Your task to perform on an android device: open sync settings in chrome Image 0: 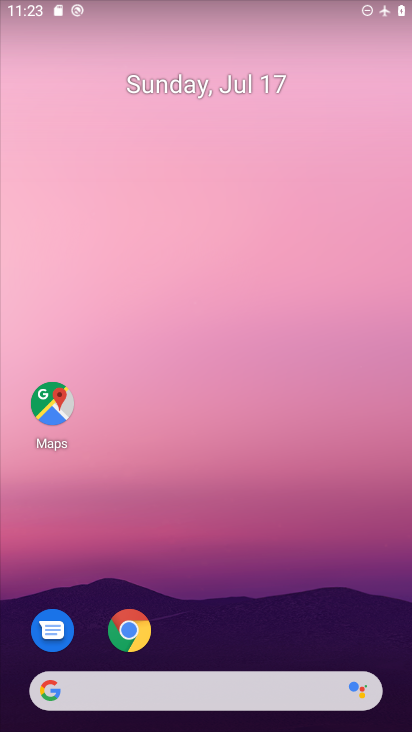
Step 0: drag from (170, 630) to (302, 129)
Your task to perform on an android device: open sync settings in chrome Image 1: 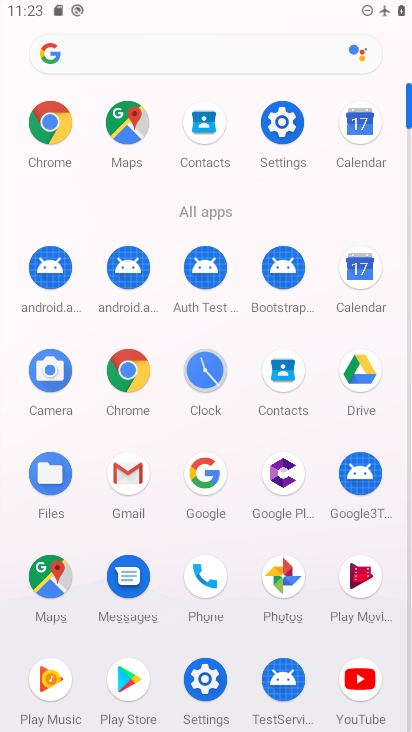
Step 1: click (54, 111)
Your task to perform on an android device: open sync settings in chrome Image 2: 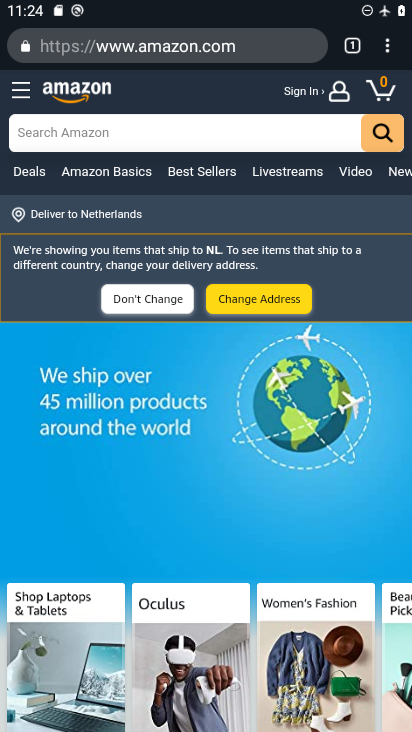
Step 2: click (385, 49)
Your task to perform on an android device: open sync settings in chrome Image 3: 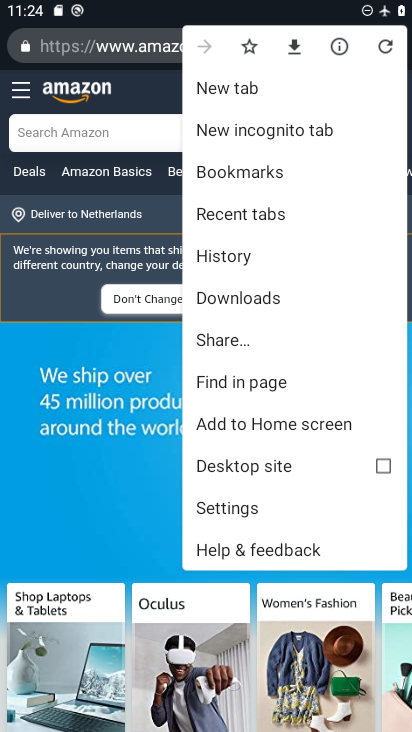
Step 3: click (222, 507)
Your task to perform on an android device: open sync settings in chrome Image 4: 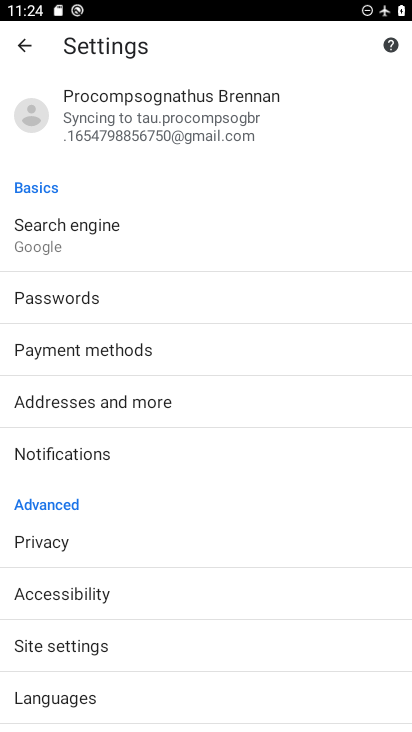
Step 4: click (153, 112)
Your task to perform on an android device: open sync settings in chrome Image 5: 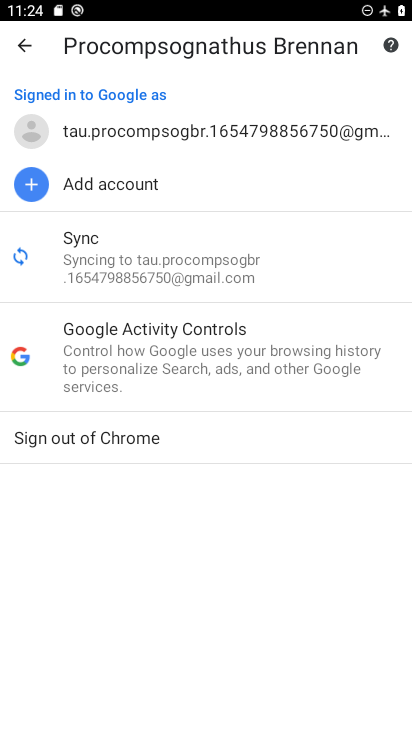
Step 5: click (99, 272)
Your task to perform on an android device: open sync settings in chrome Image 6: 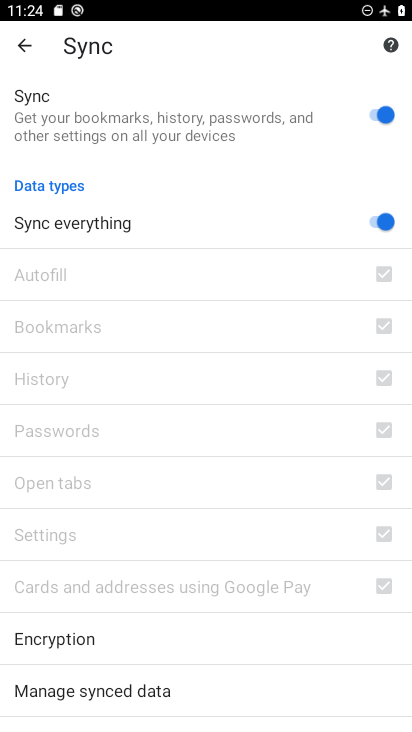
Step 6: task complete